Your task to perform on an android device: change the clock display to digital Image 0: 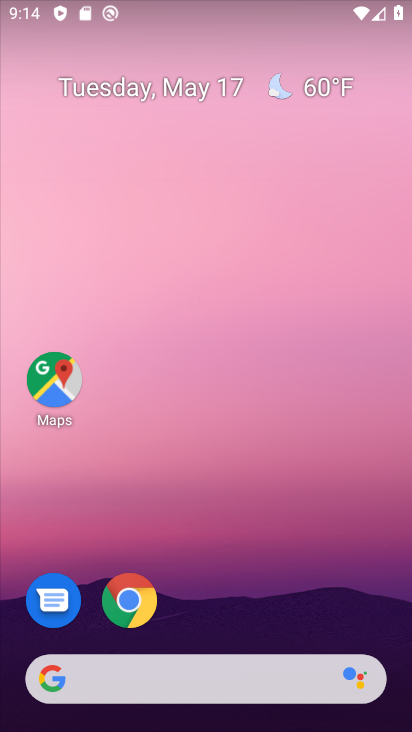
Step 0: drag from (395, 696) to (399, 375)
Your task to perform on an android device: change the clock display to digital Image 1: 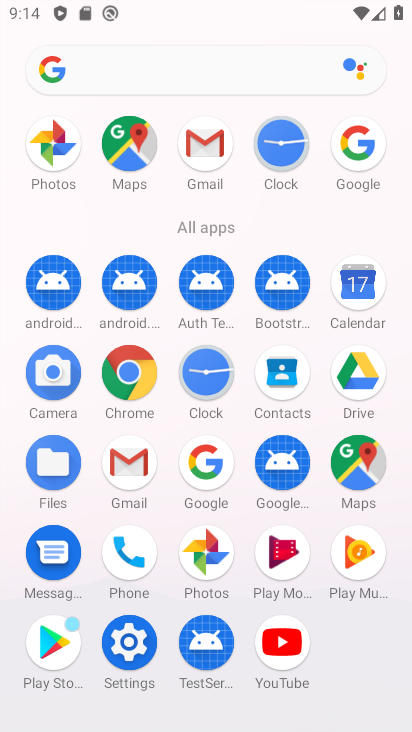
Step 1: click (201, 376)
Your task to perform on an android device: change the clock display to digital Image 2: 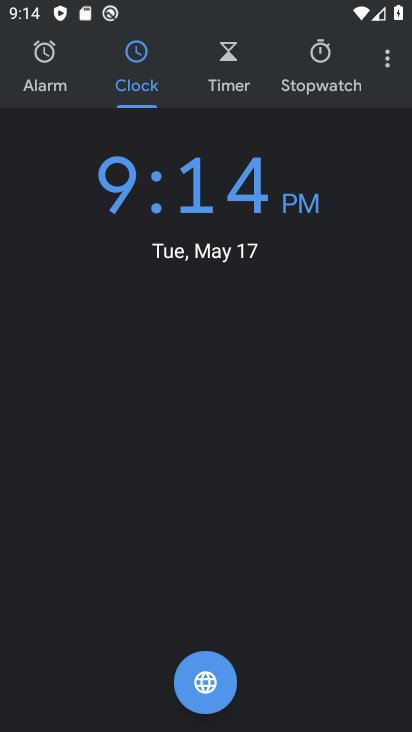
Step 2: click (387, 55)
Your task to perform on an android device: change the clock display to digital Image 3: 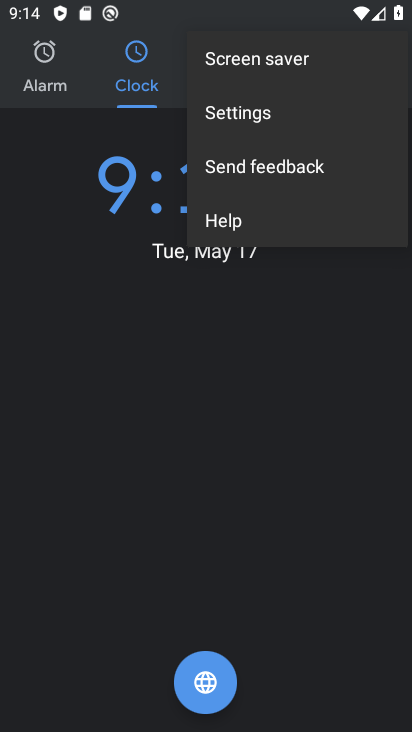
Step 3: click (230, 104)
Your task to perform on an android device: change the clock display to digital Image 4: 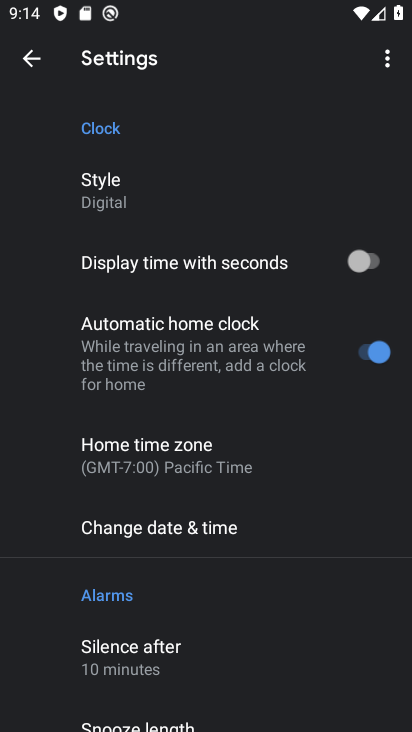
Step 4: click (99, 186)
Your task to perform on an android device: change the clock display to digital Image 5: 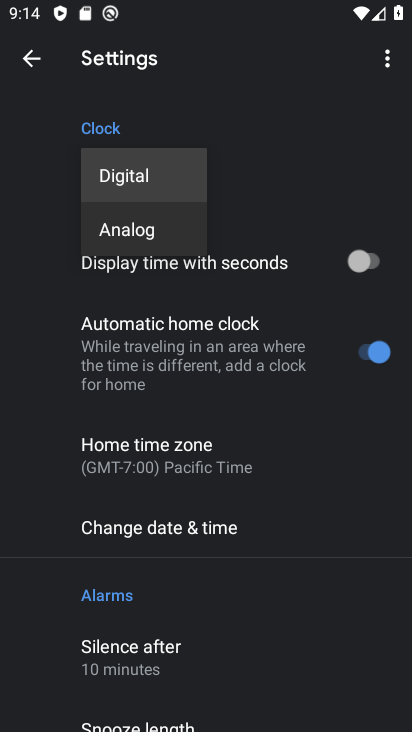
Step 5: click (140, 172)
Your task to perform on an android device: change the clock display to digital Image 6: 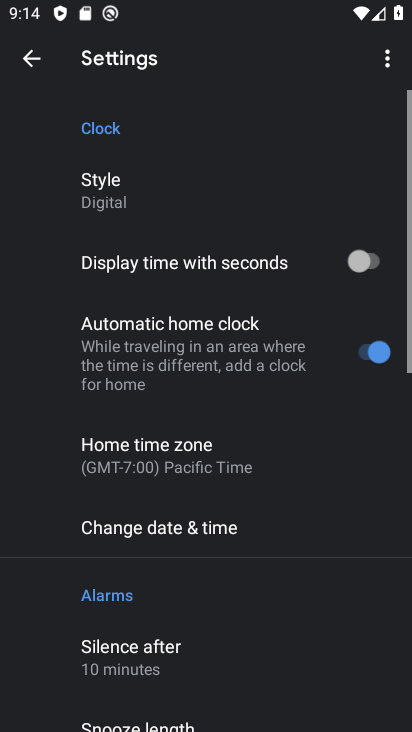
Step 6: task complete